Your task to perform on an android device: open app "Duolingo: language lessons" (install if not already installed), go to login, and select forgot password Image 0: 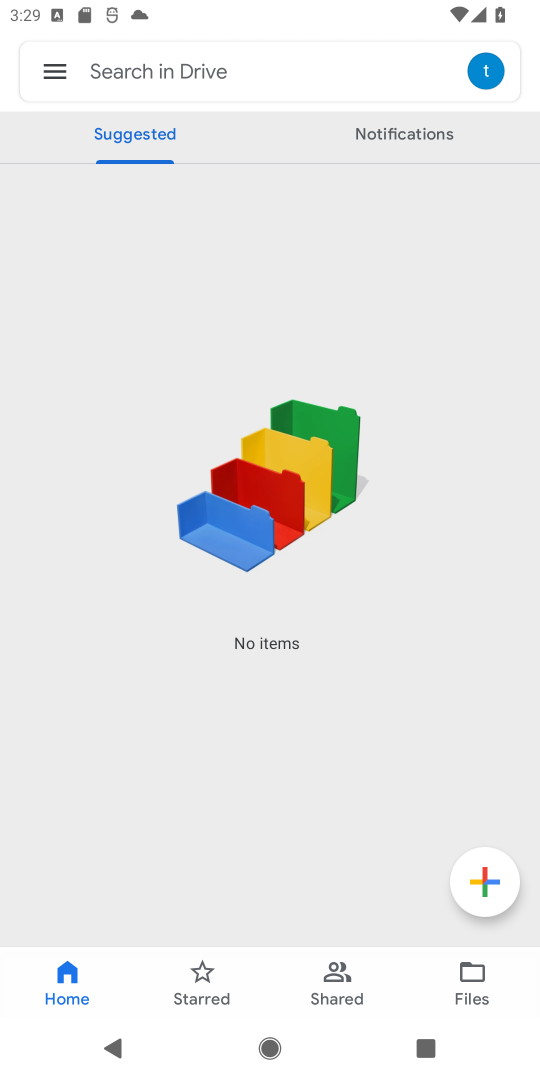
Step 0: press home button
Your task to perform on an android device: open app "Duolingo: language lessons" (install if not already installed), go to login, and select forgot password Image 1: 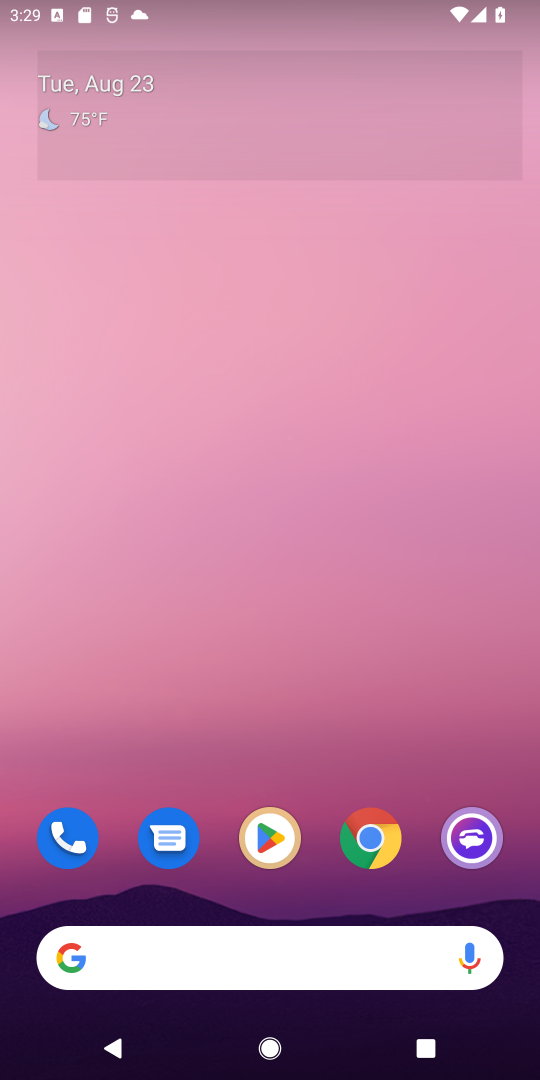
Step 1: drag from (252, 868) to (197, 183)
Your task to perform on an android device: open app "Duolingo: language lessons" (install if not already installed), go to login, and select forgot password Image 2: 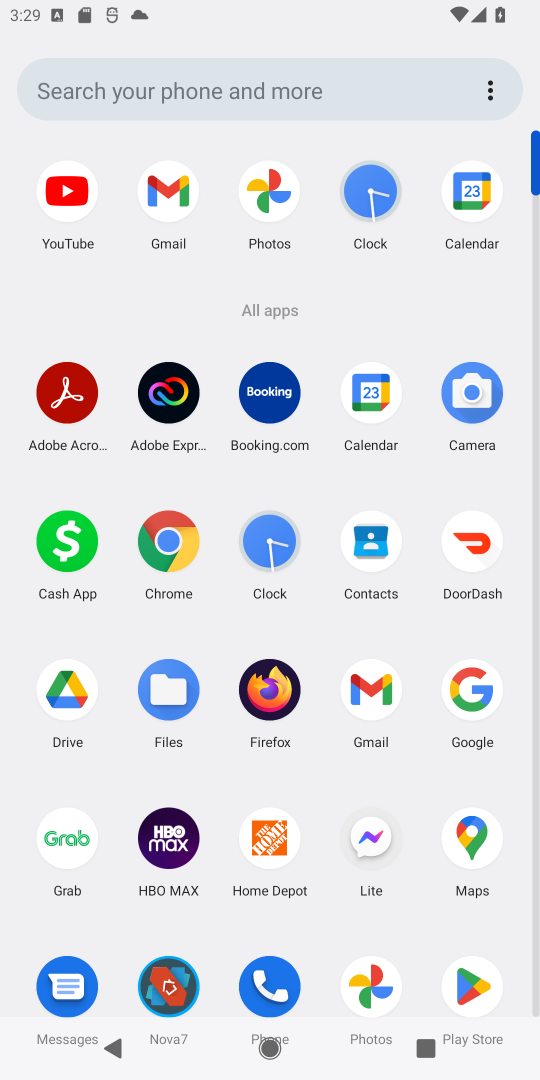
Step 2: click (483, 993)
Your task to perform on an android device: open app "Duolingo: language lessons" (install if not already installed), go to login, and select forgot password Image 3: 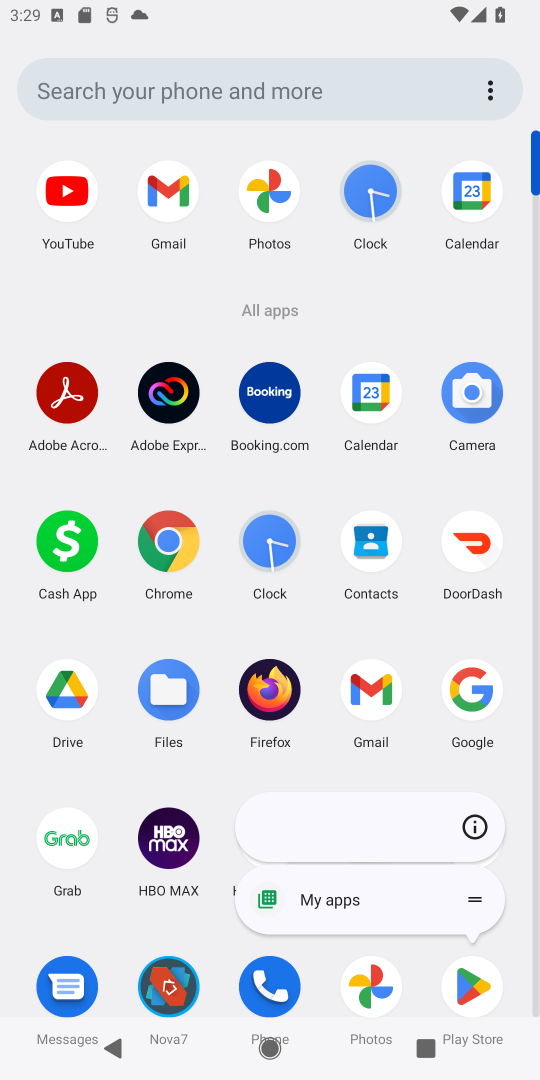
Step 3: click (483, 989)
Your task to perform on an android device: open app "Duolingo: language lessons" (install if not already installed), go to login, and select forgot password Image 4: 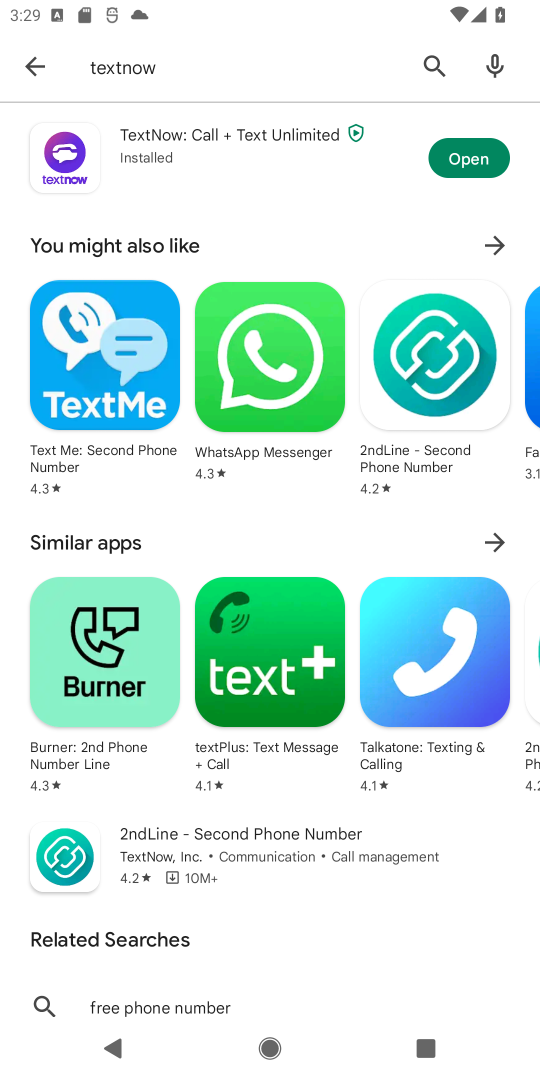
Step 4: click (26, 57)
Your task to perform on an android device: open app "Duolingo: language lessons" (install if not already installed), go to login, and select forgot password Image 5: 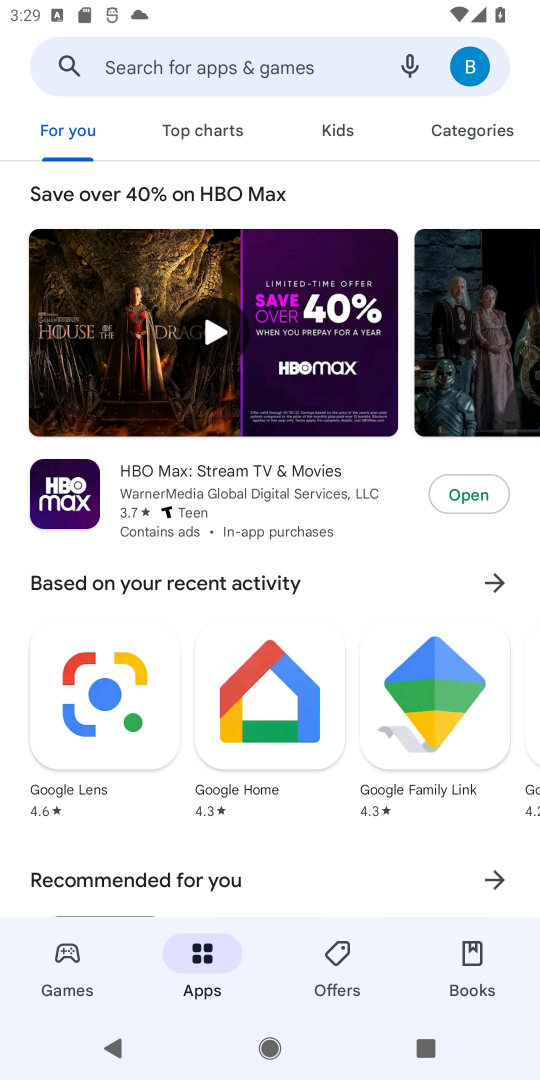
Step 5: click (207, 68)
Your task to perform on an android device: open app "Duolingo: language lessons" (install if not already installed), go to login, and select forgot password Image 6: 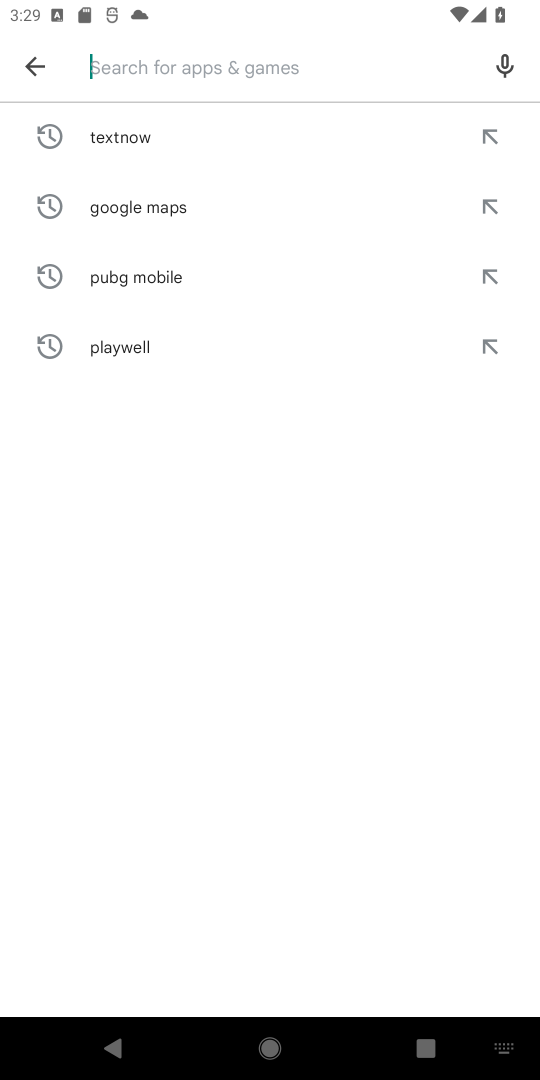
Step 6: type "Duolingo"
Your task to perform on an android device: open app "Duolingo: language lessons" (install if not already installed), go to login, and select forgot password Image 7: 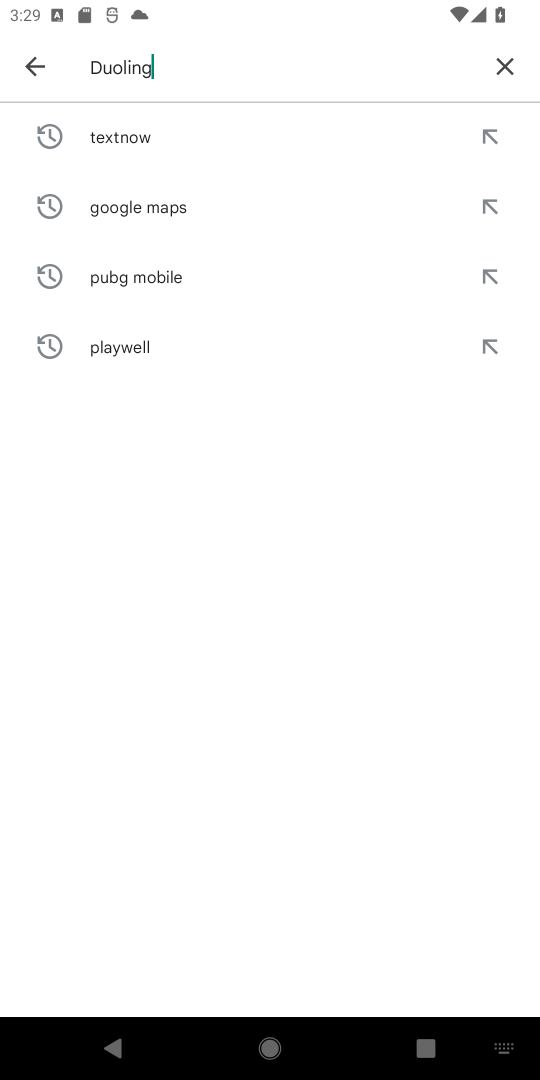
Step 7: type ""
Your task to perform on an android device: open app "Duolingo: language lessons" (install if not already installed), go to login, and select forgot password Image 8: 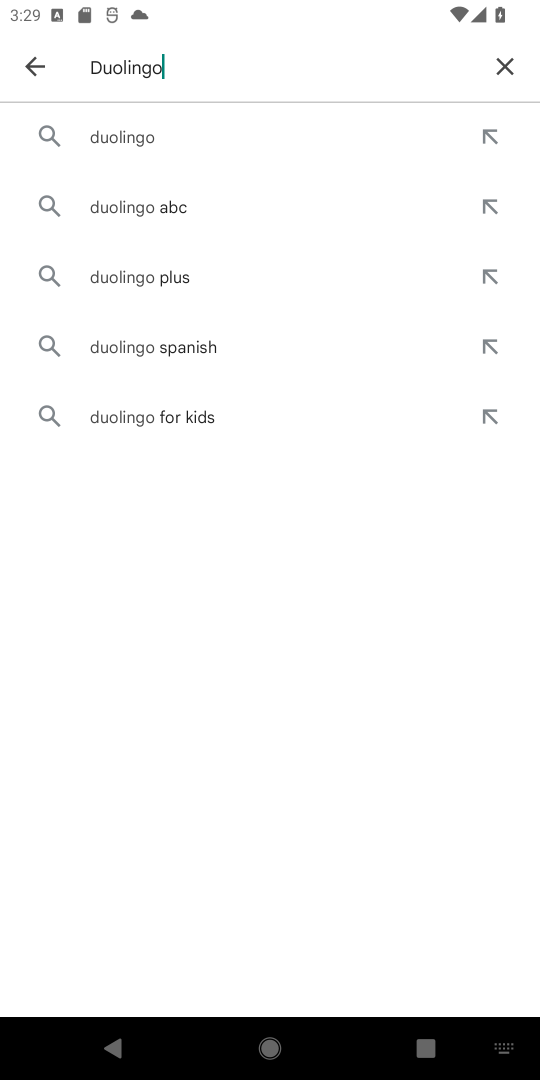
Step 8: click (119, 144)
Your task to perform on an android device: open app "Duolingo: language lessons" (install if not already installed), go to login, and select forgot password Image 9: 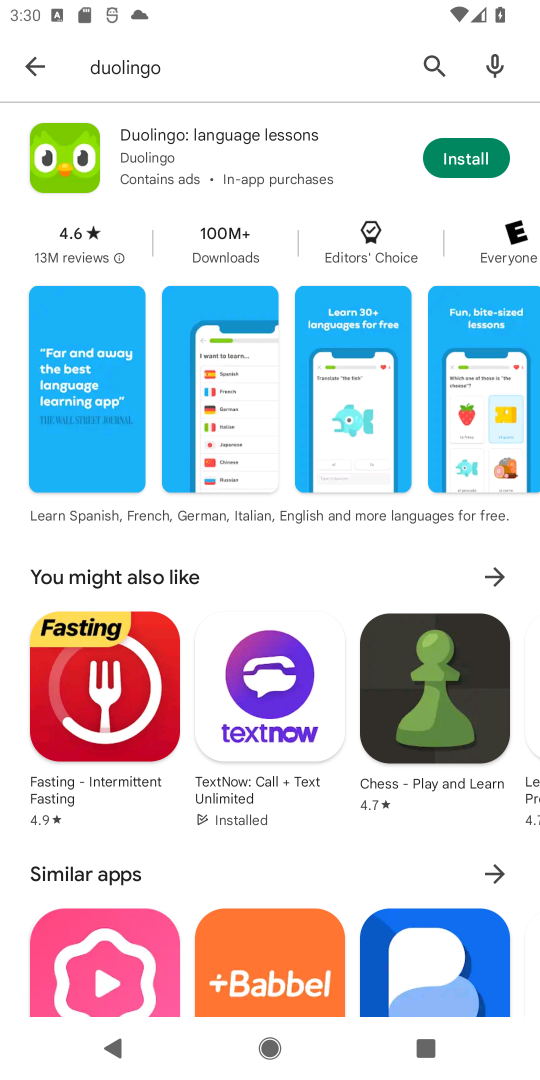
Step 9: click (453, 159)
Your task to perform on an android device: open app "Duolingo: language lessons" (install if not already installed), go to login, and select forgot password Image 10: 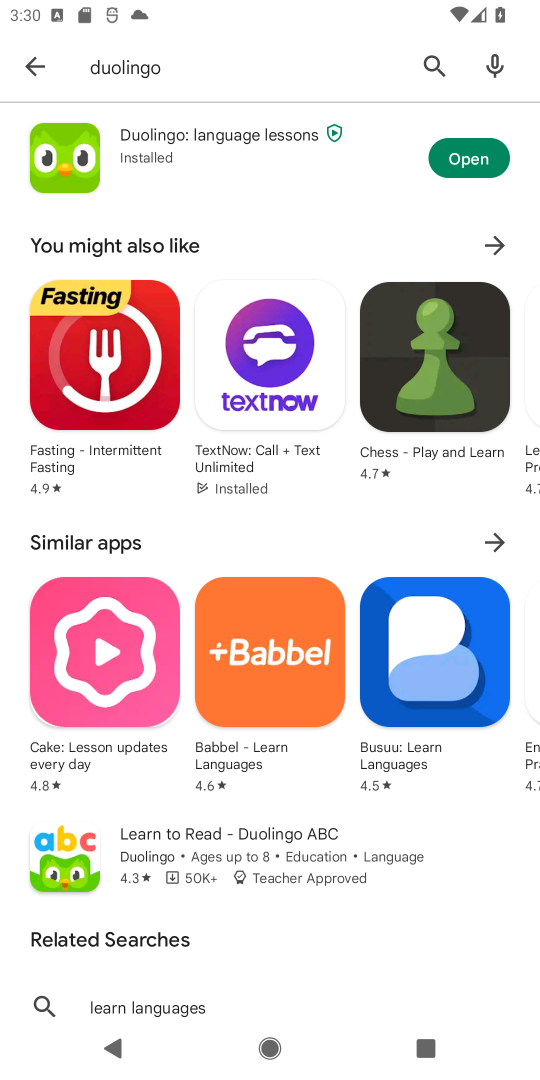
Step 10: click (431, 168)
Your task to perform on an android device: open app "Duolingo: language lessons" (install if not already installed), go to login, and select forgot password Image 11: 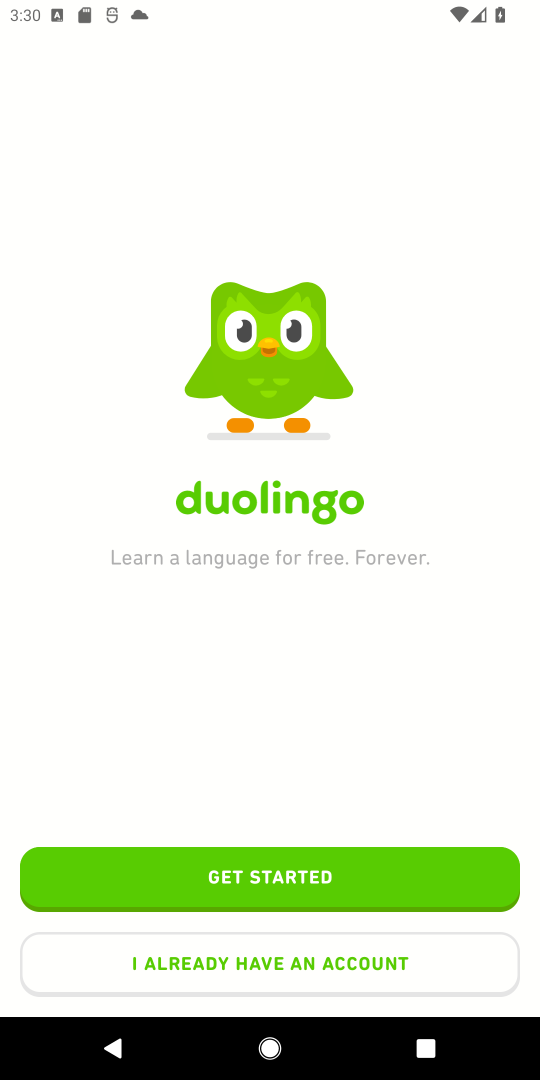
Step 11: click (297, 881)
Your task to perform on an android device: open app "Duolingo: language lessons" (install if not already installed), go to login, and select forgot password Image 12: 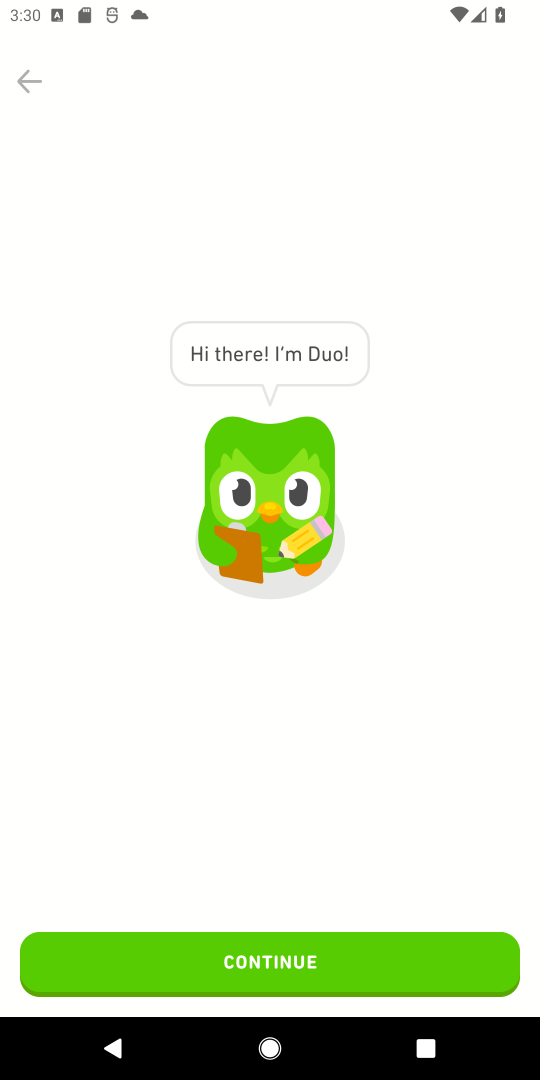
Step 12: click (323, 969)
Your task to perform on an android device: open app "Duolingo: language lessons" (install if not already installed), go to login, and select forgot password Image 13: 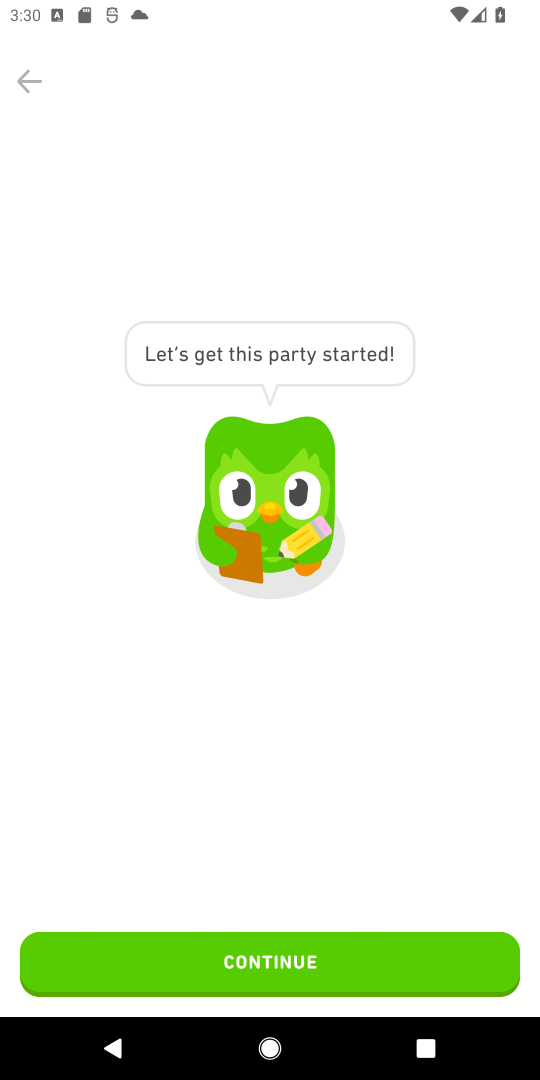
Step 13: click (257, 955)
Your task to perform on an android device: open app "Duolingo: language lessons" (install if not already installed), go to login, and select forgot password Image 14: 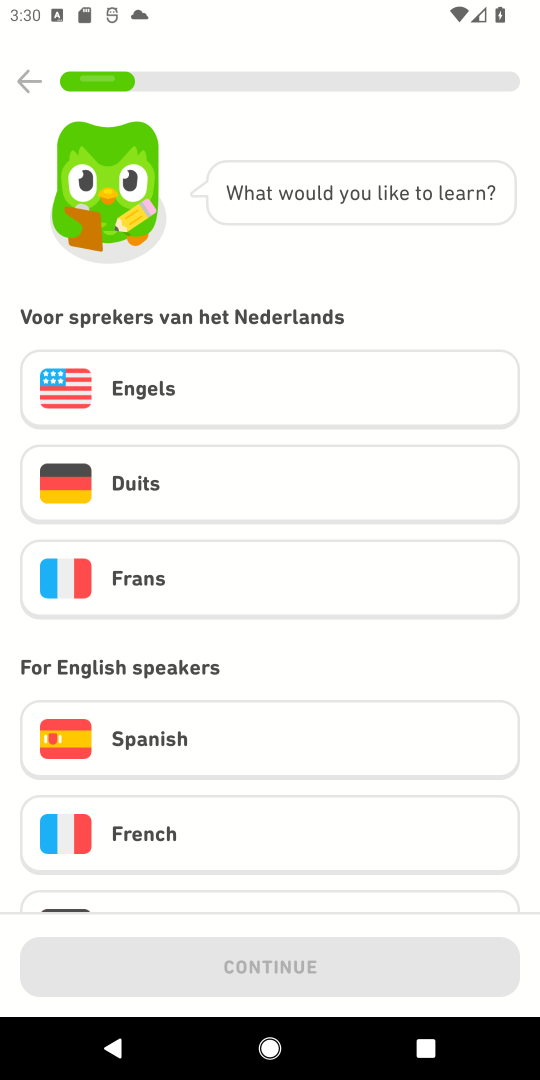
Step 14: drag from (287, 791) to (285, 325)
Your task to perform on an android device: open app "Duolingo: language lessons" (install if not already installed), go to login, and select forgot password Image 15: 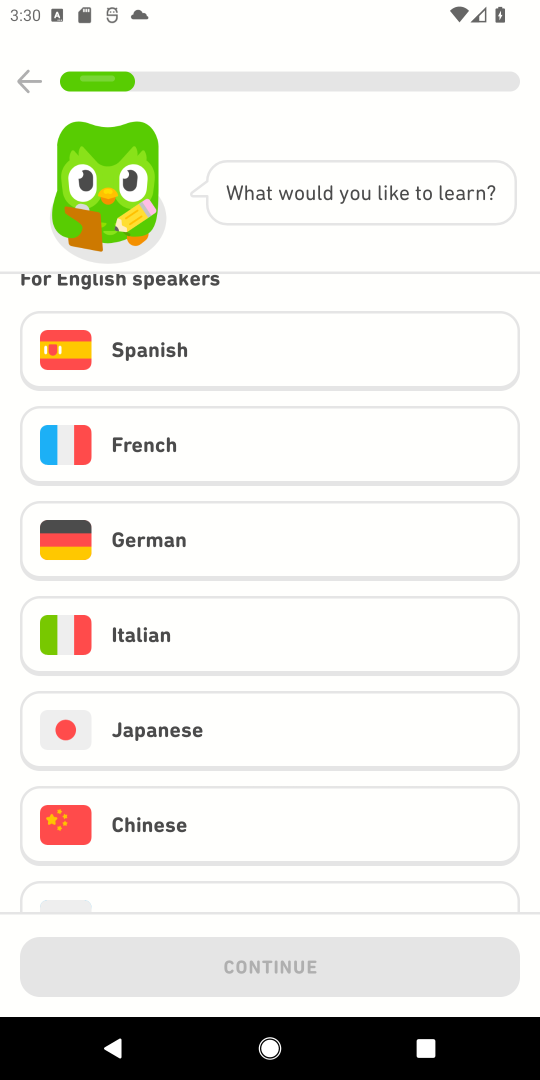
Step 15: drag from (158, 760) to (234, 306)
Your task to perform on an android device: open app "Duolingo: language lessons" (install if not already installed), go to login, and select forgot password Image 16: 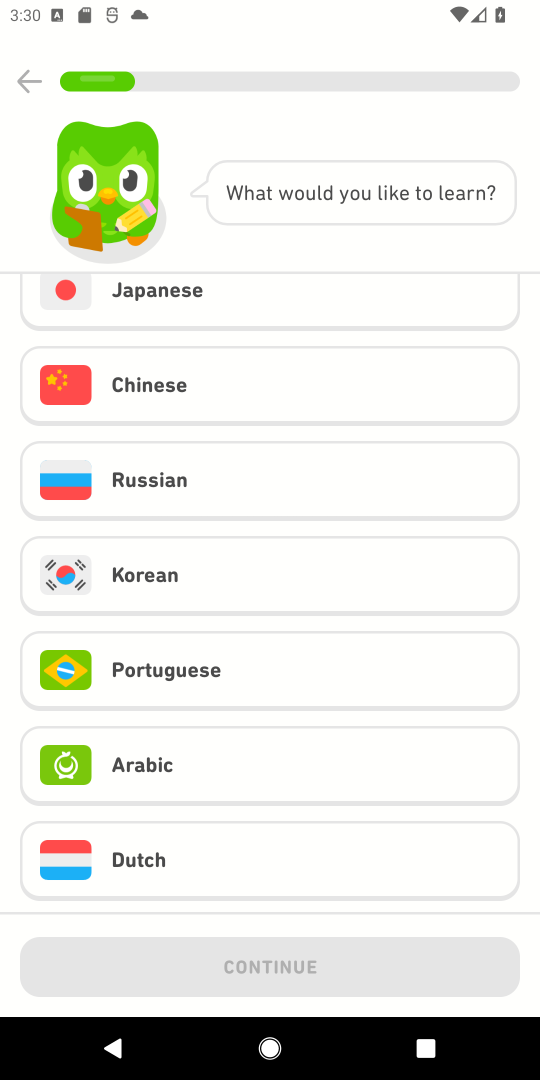
Step 16: drag from (130, 811) to (132, 420)
Your task to perform on an android device: open app "Duolingo: language lessons" (install if not already installed), go to login, and select forgot password Image 17: 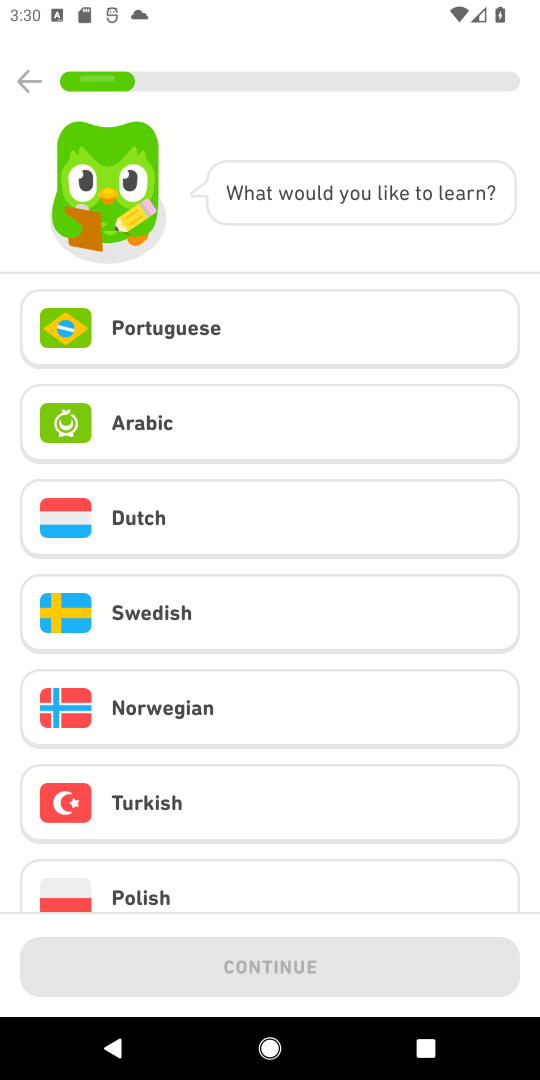
Step 17: click (139, 428)
Your task to perform on an android device: open app "Duolingo: language lessons" (install if not already installed), go to login, and select forgot password Image 18: 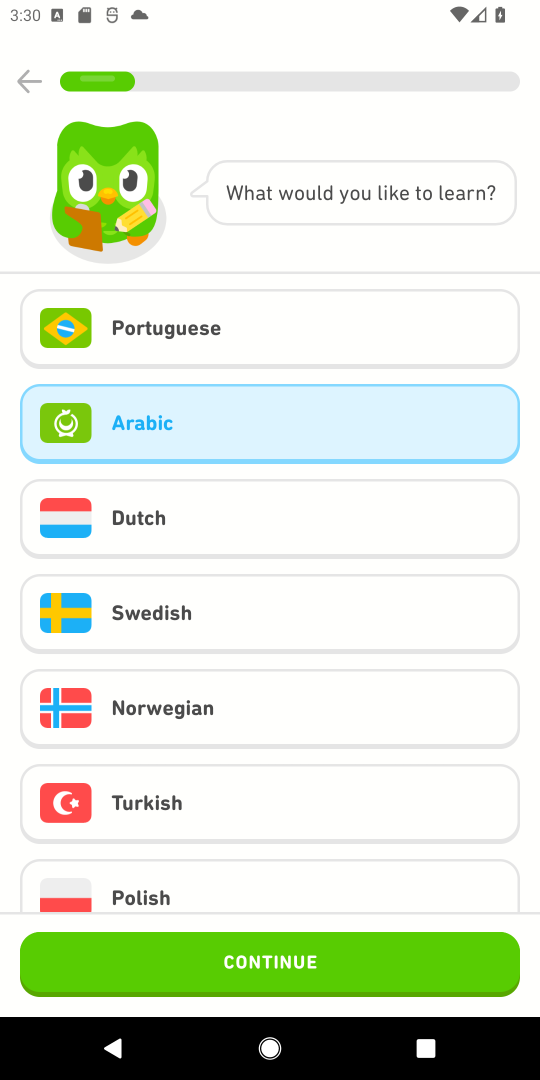
Step 18: click (215, 988)
Your task to perform on an android device: open app "Duolingo: language lessons" (install if not already installed), go to login, and select forgot password Image 19: 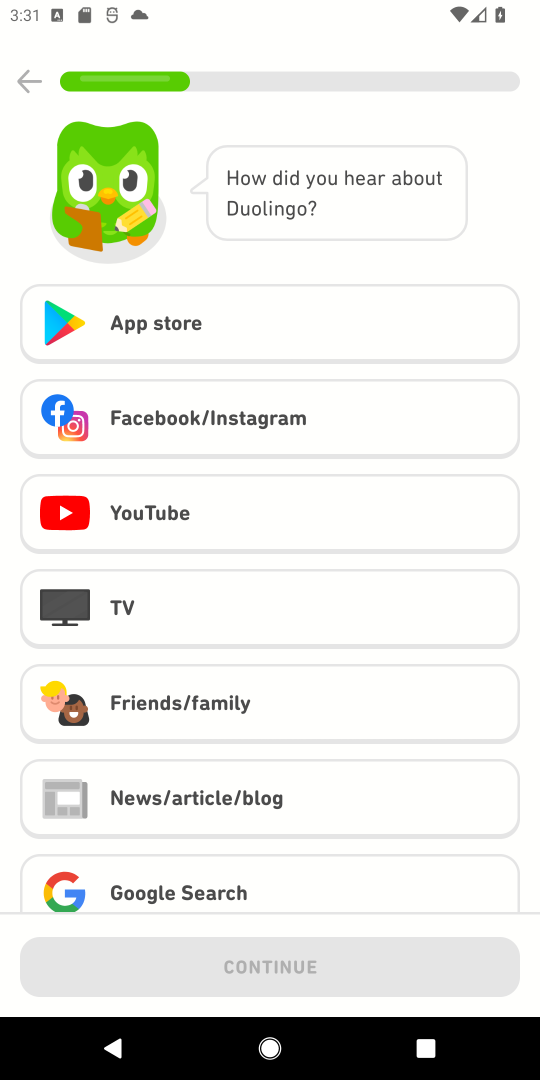
Step 19: task complete